Your task to perform on an android device: find photos in the google photos app Image 0: 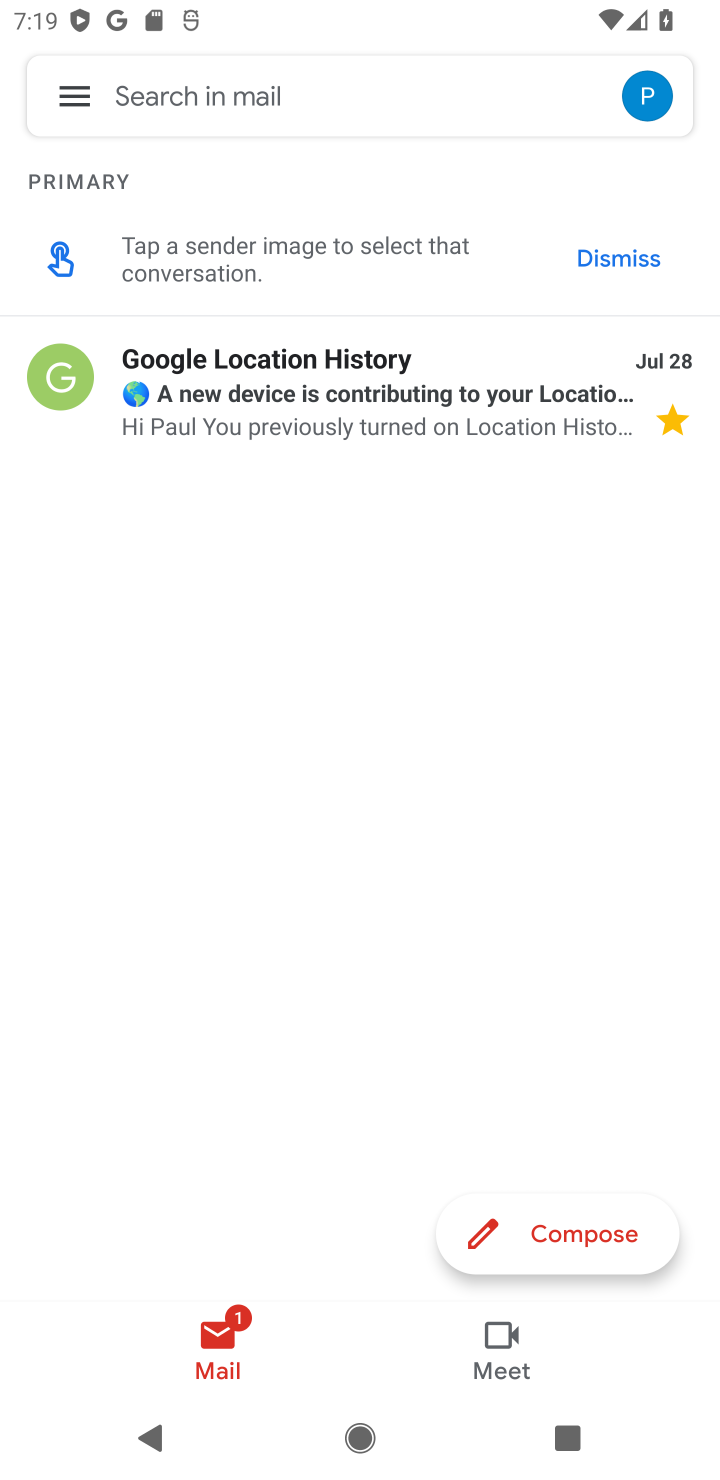
Step 0: press home button
Your task to perform on an android device: find photos in the google photos app Image 1: 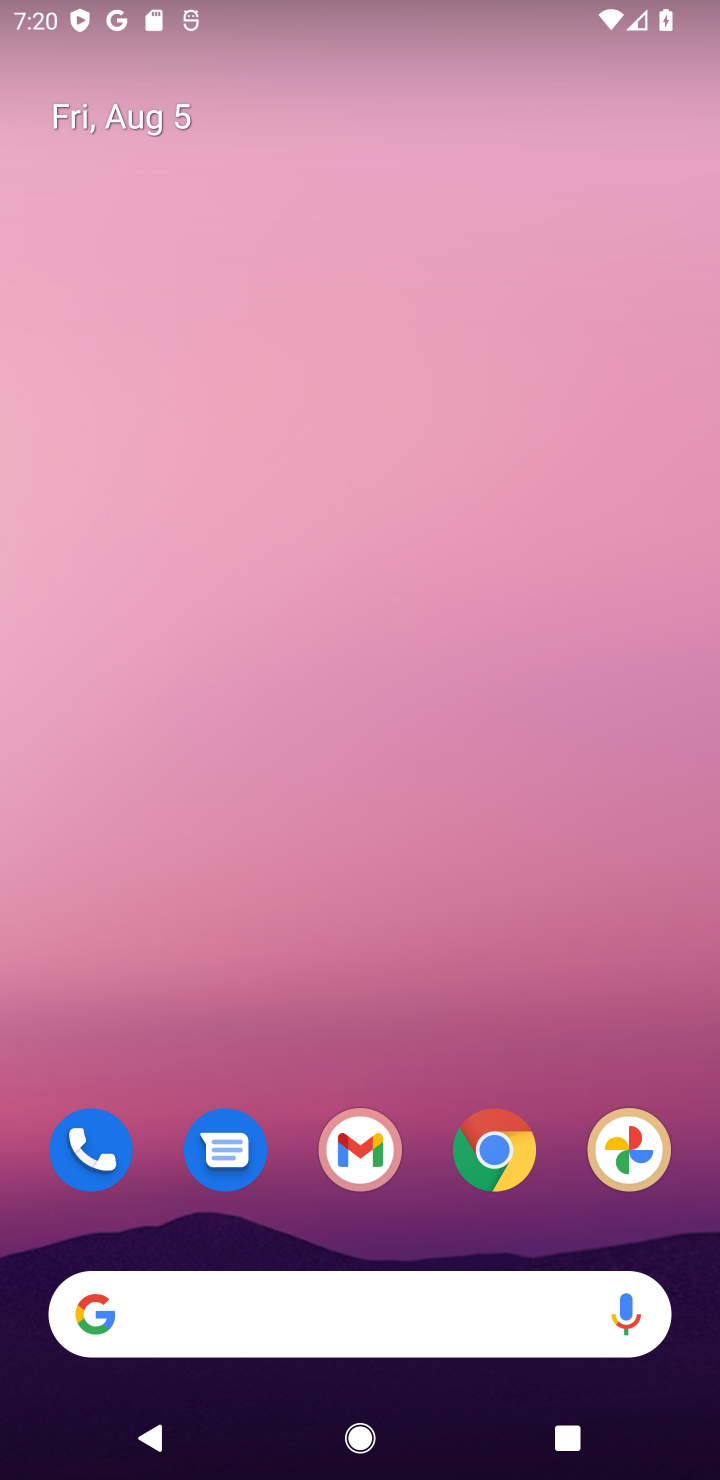
Step 1: drag from (374, 1051) to (404, 336)
Your task to perform on an android device: find photos in the google photos app Image 2: 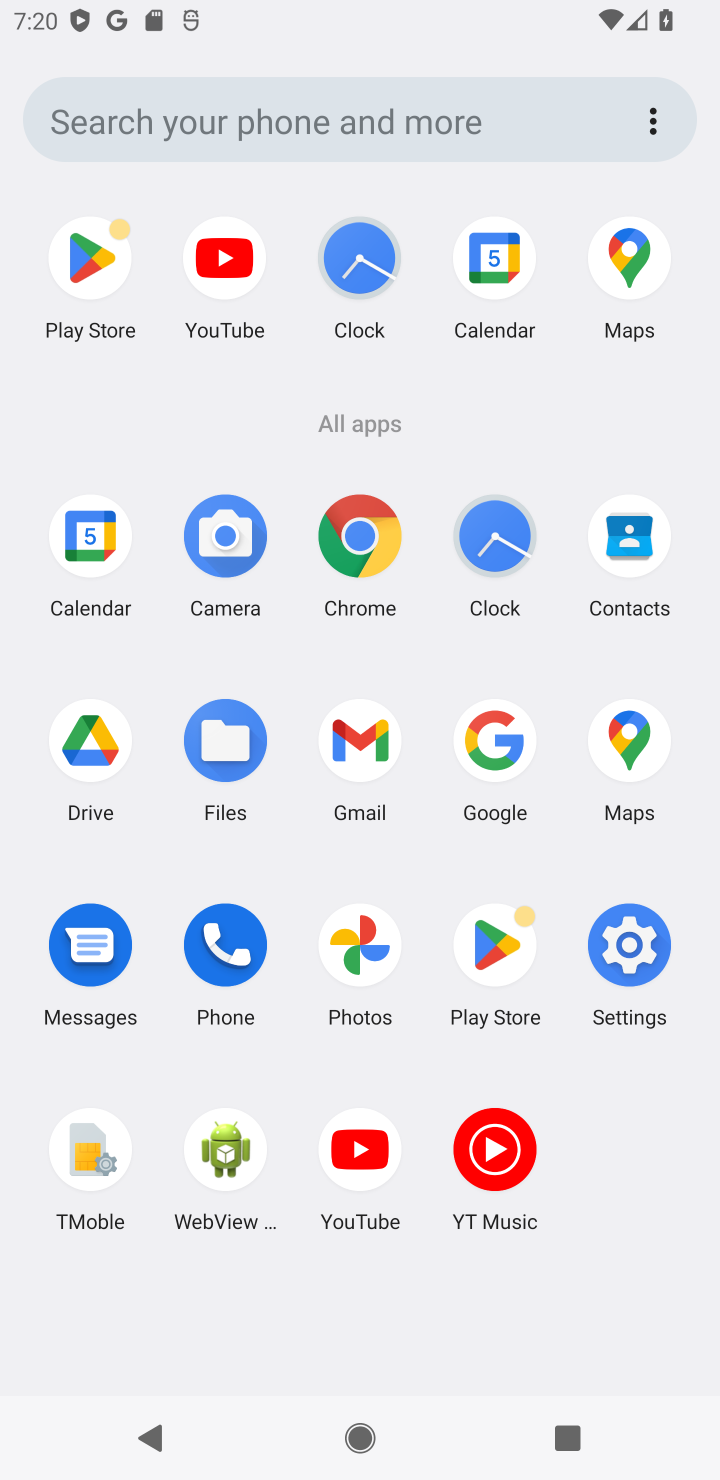
Step 2: click (351, 956)
Your task to perform on an android device: find photos in the google photos app Image 3: 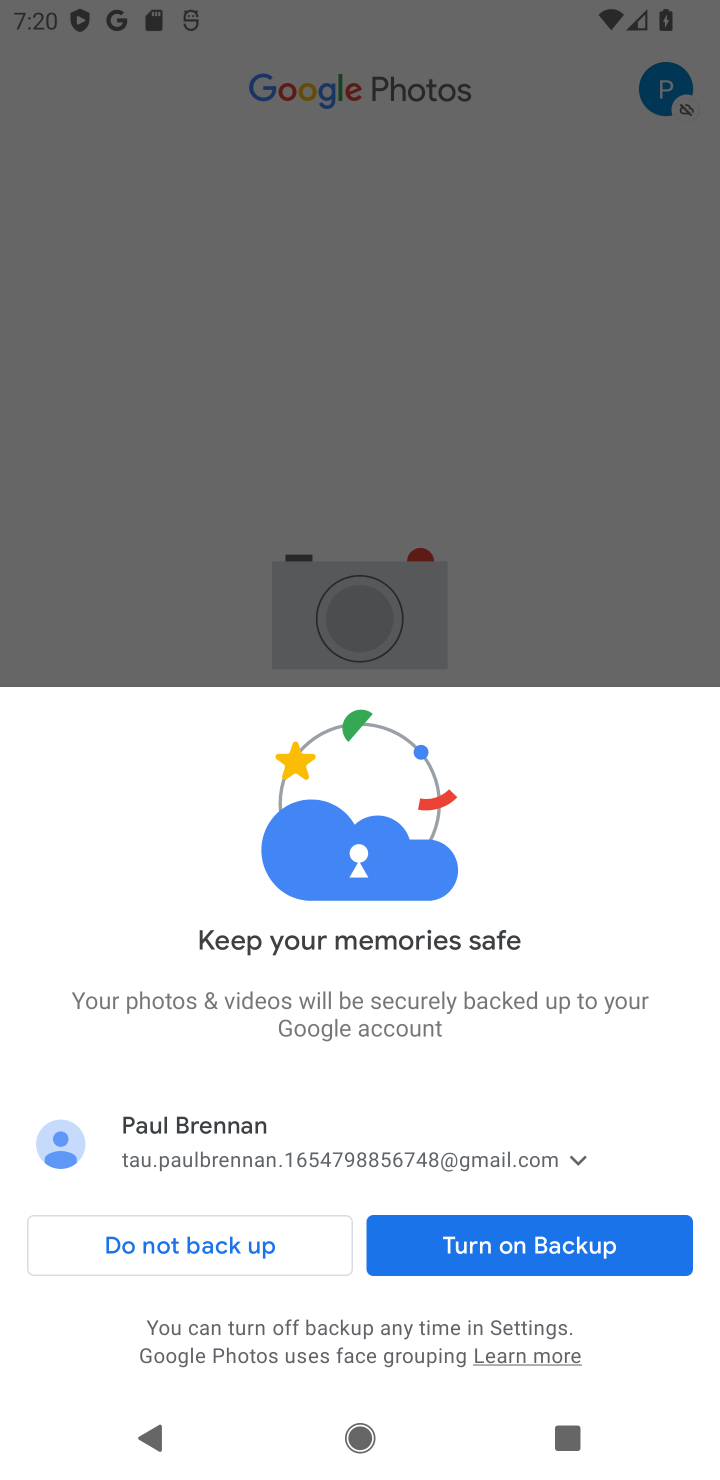
Step 3: click (275, 1245)
Your task to perform on an android device: find photos in the google photos app Image 4: 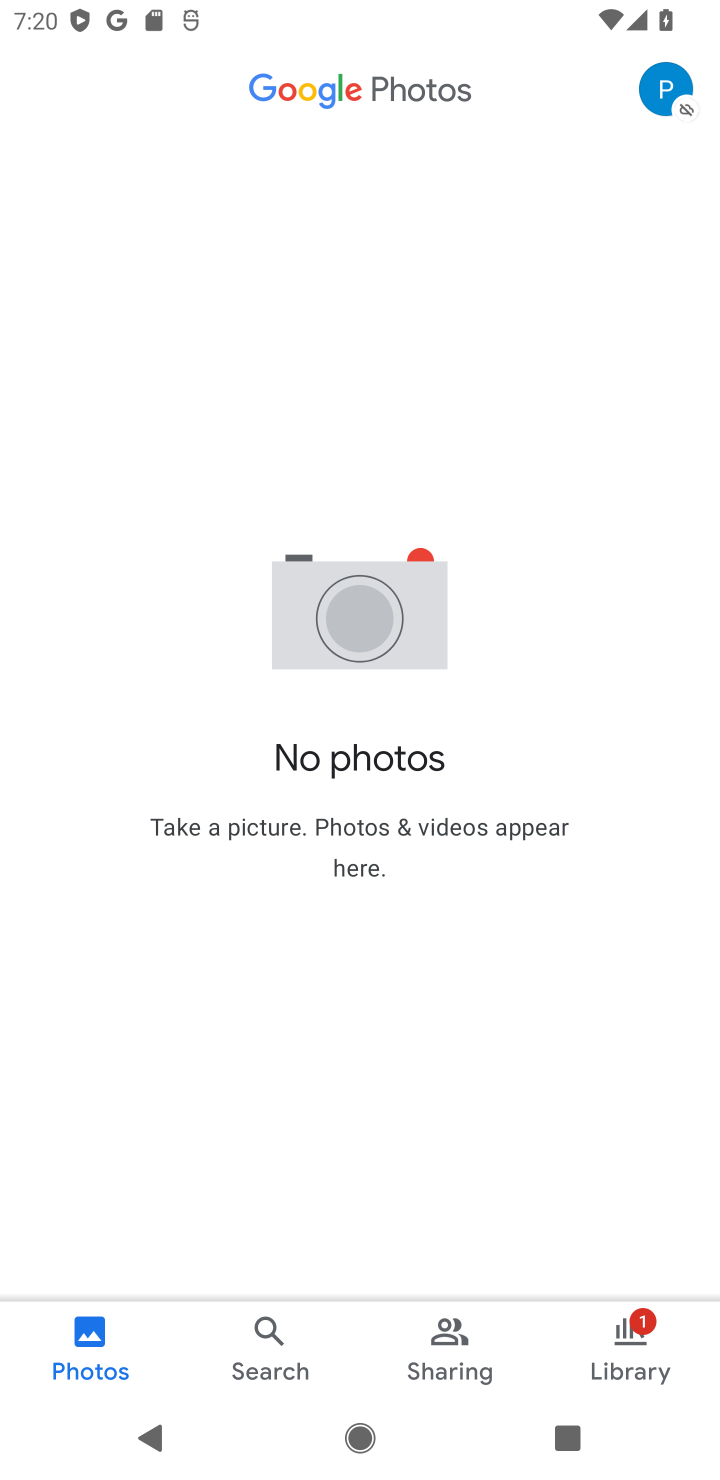
Step 4: task complete